Your task to perform on an android device: toggle notification dots Image 0: 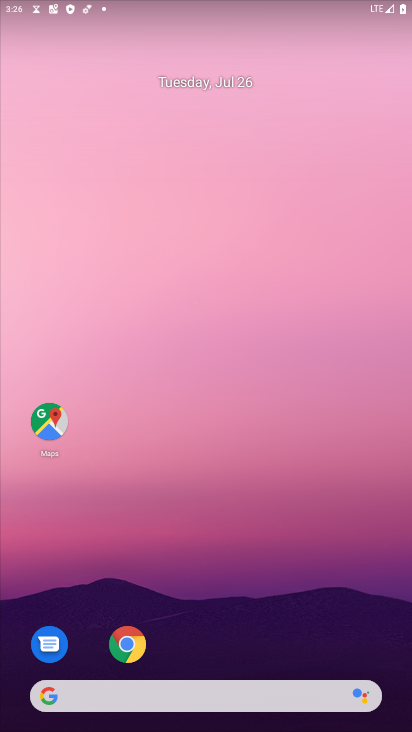
Step 0: drag from (198, 679) to (176, 216)
Your task to perform on an android device: toggle notification dots Image 1: 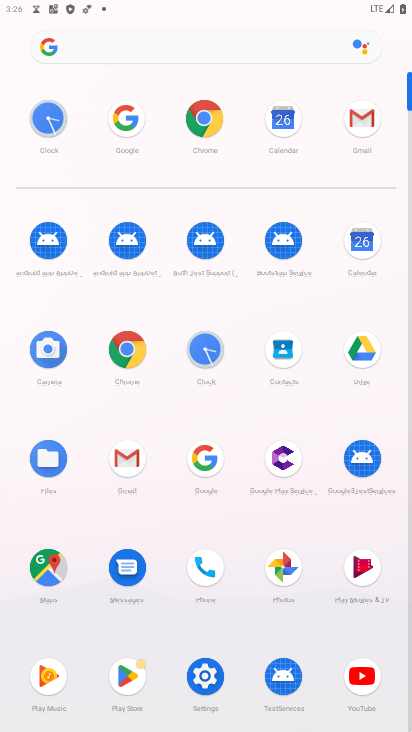
Step 1: click (220, 683)
Your task to perform on an android device: toggle notification dots Image 2: 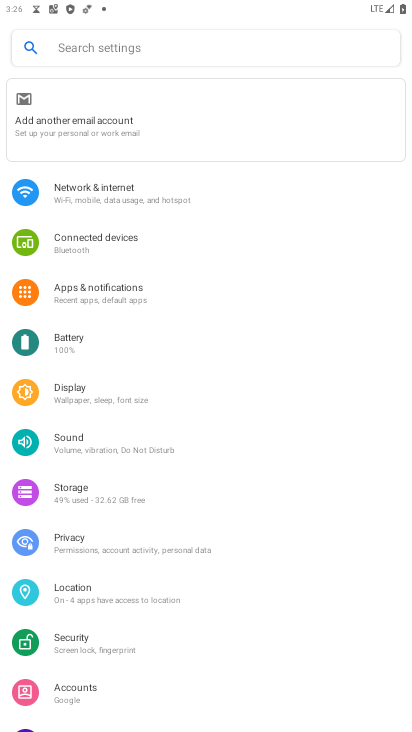
Step 2: click (102, 285)
Your task to perform on an android device: toggle notification dots Image 3: 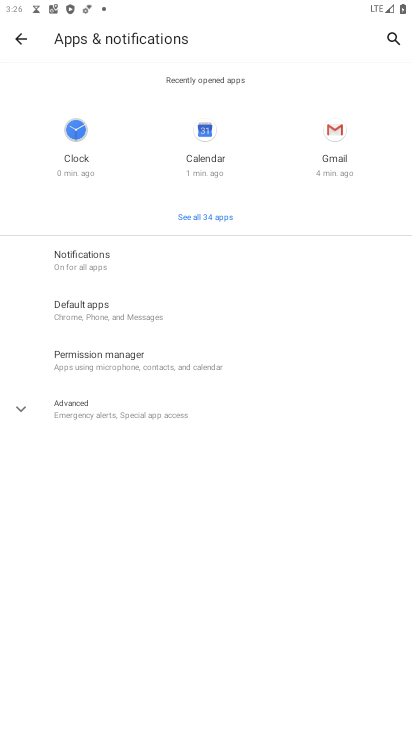
Step 3: click (84, 253)
Your task to perform on an android device: toggle notification dots Image 4: 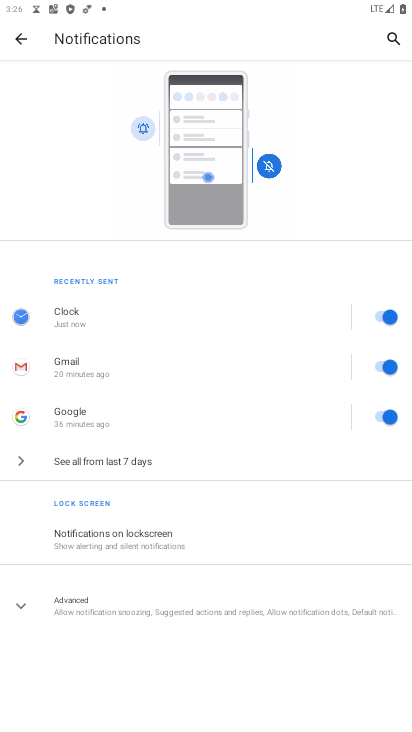
Step 4: click (79, 603)
Your task to perform on an android device: toggle notification dots Image 5: 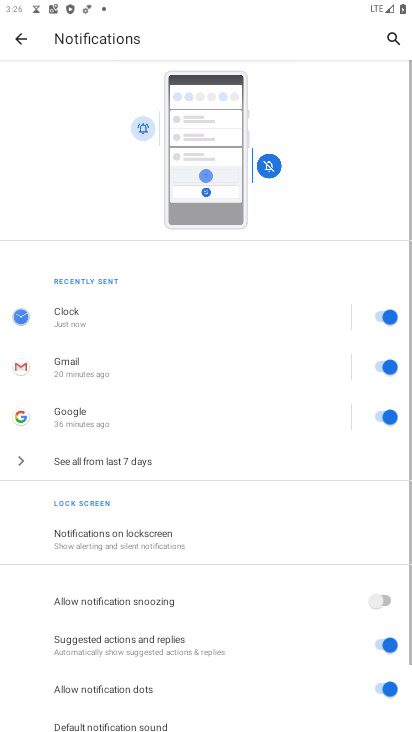
Step 5: drag from (168, 649) to (167, 236)
Your task to perform on an android device: toggle notification dots Image 6: 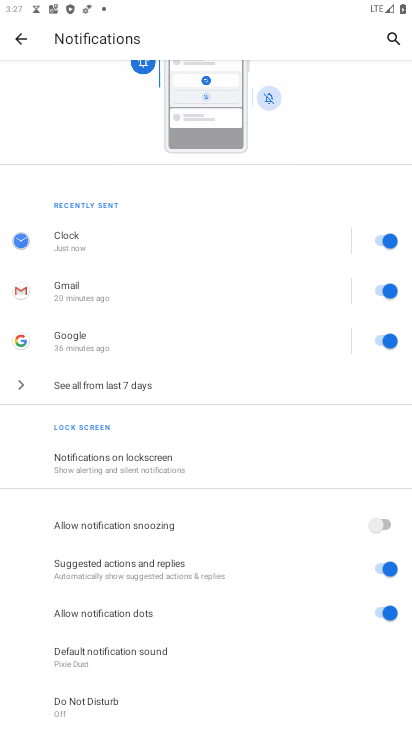
Step 6: click (380, 611)
Your task to perform on an android device: toggle notification dots Image 7: 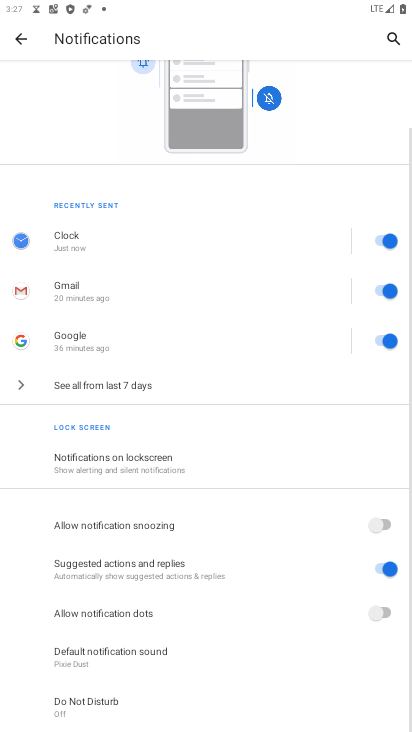
Step 7: task complete